Your task to perform on an android device: set default search engine in the chrome app Image 0: 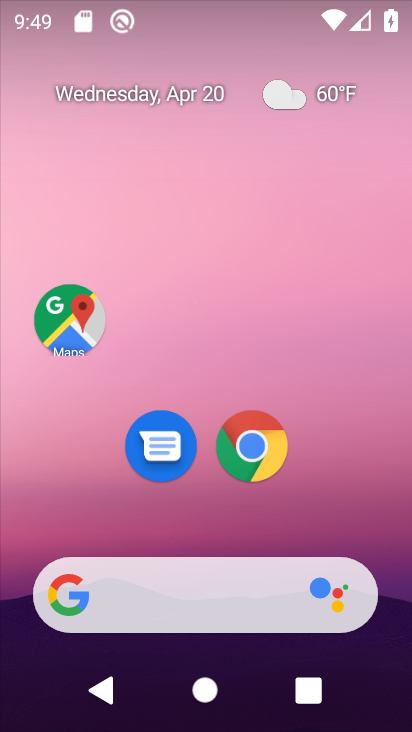
Step 0: drag from (380, 443) to (361, 91)
Your task to perform on an android device: set default search engine in the chrome app Image 1: 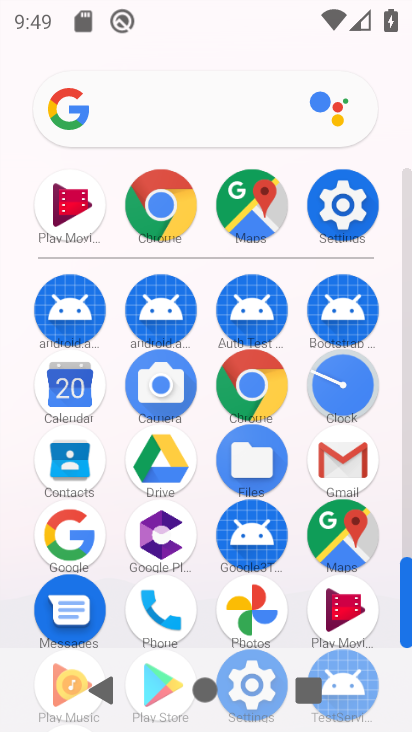
Step 1: click (248, 399)
Your task to perform on an android device: set default search engine in the chrome app Image 2: 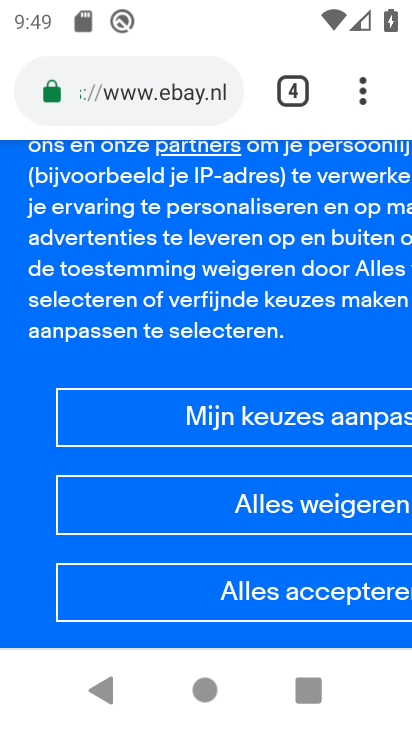
Step 2: drag from (374, 102) to (115, 487)
Your task to perform on an android device: set default search engine in the chrome app Image 3: 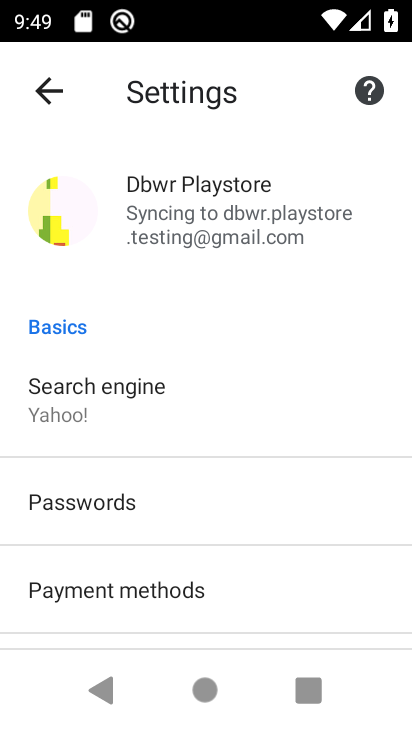
Step 3: click (130, 388)
Your task to perform on an android device: set default search engine in the chrome app Image 4: 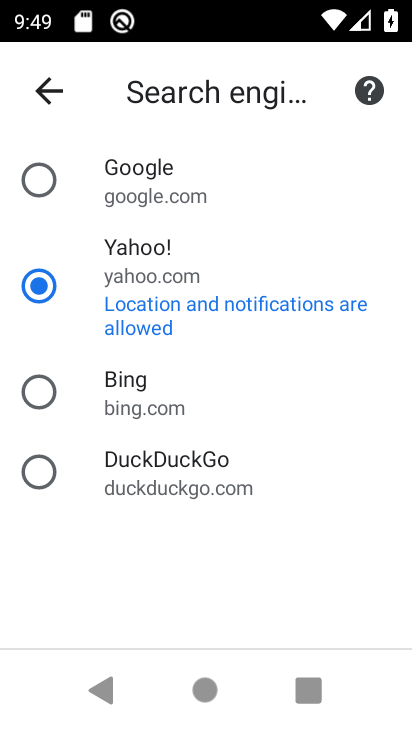
Step 4: click (22, 179)
Your task to perform on an android device: set default search engine in the chrome app Image 5: 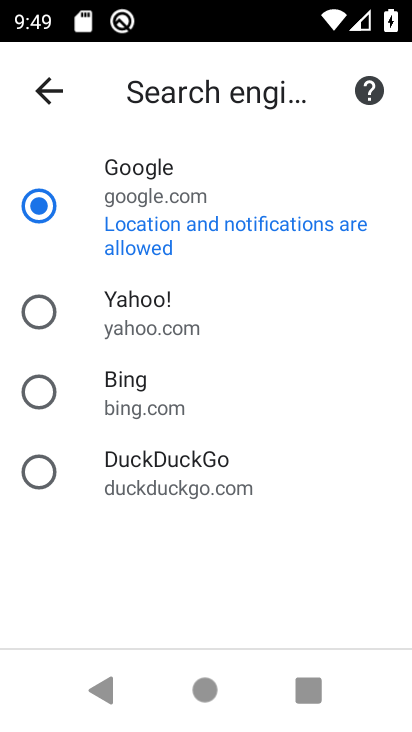
Step 5: task complete